Your task to perform on an android device: see sites visited before in the chrome app Image 0: 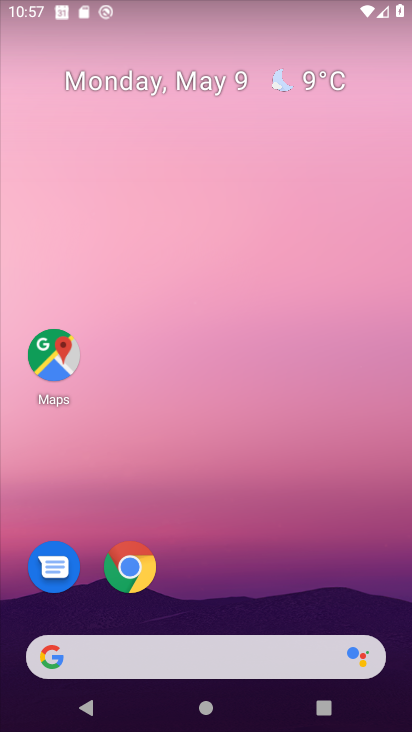
Step 0: click (126, 560)
Your task to perform on an android device: see sites visited before in the chrome app Image 1: 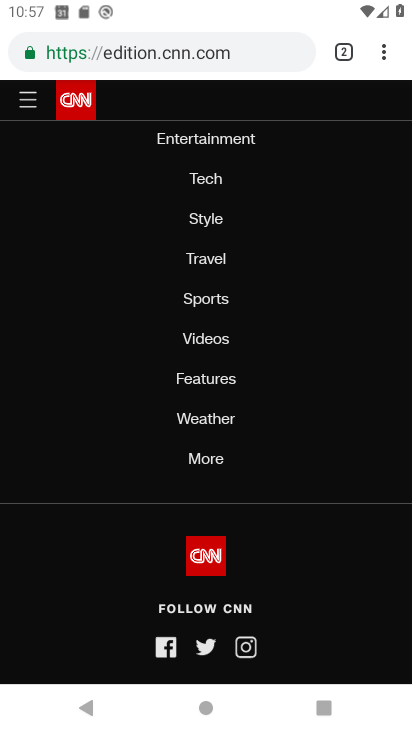
Step 1: click (386, 48)
Your task to perform on an android device: see sites visited before in the chrome app Image 2: 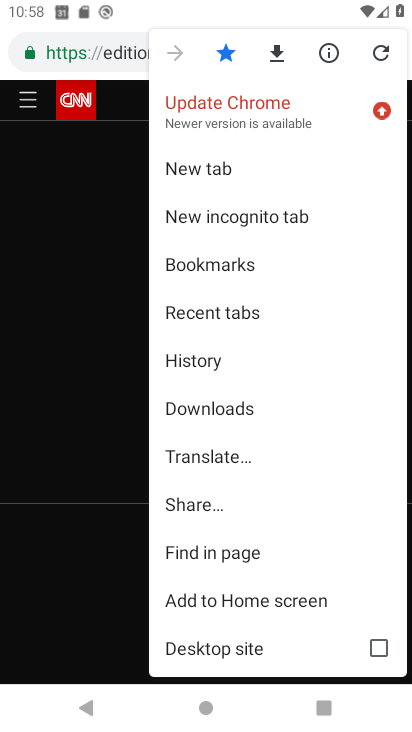
Step 2: click (223, 358)
Your task to perform on an android device: see sites visited before in the chrome app Image 3: 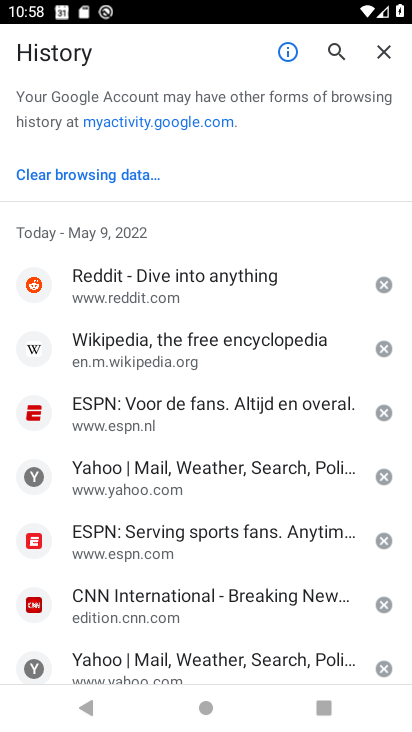
Step 3: task complete